Your task to perform on an android device: Go to Amazon Image 0: 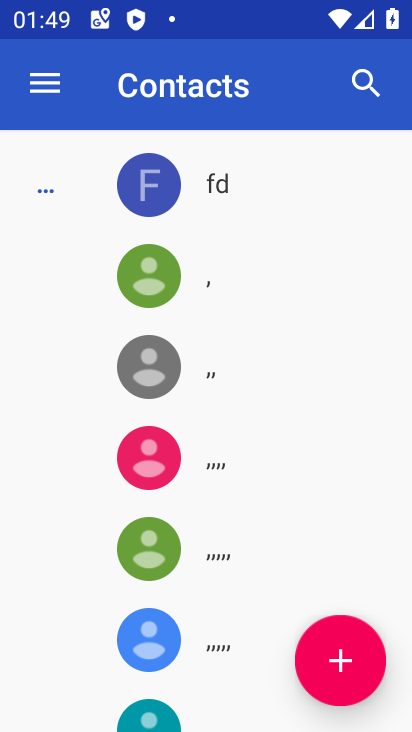
Step 0: press home button
Your task to perform on an android device: Go to Amazon Image 1: 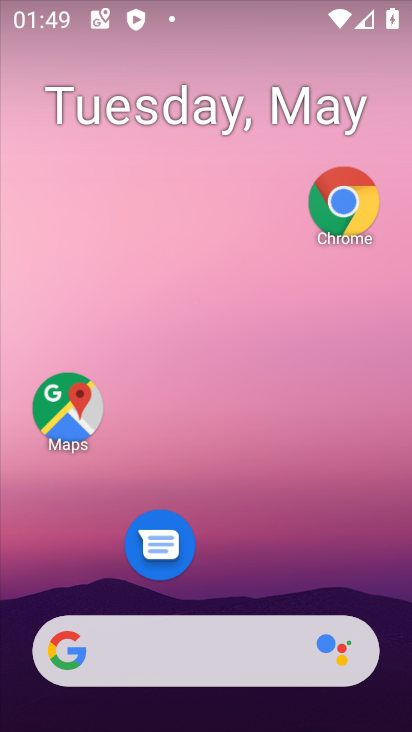
Step 1: click (347, 198)
Your task to perform on an android device: Go to Amazon Image 2: 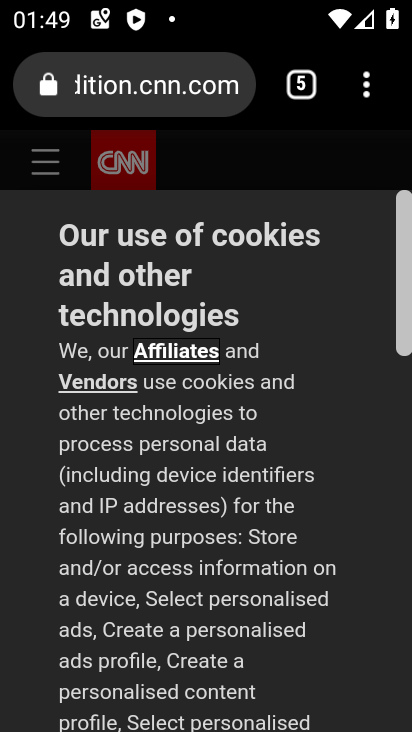
Step 2: click (299, 94)
Your task to perform on an android device: Go to Amazon Image 3: 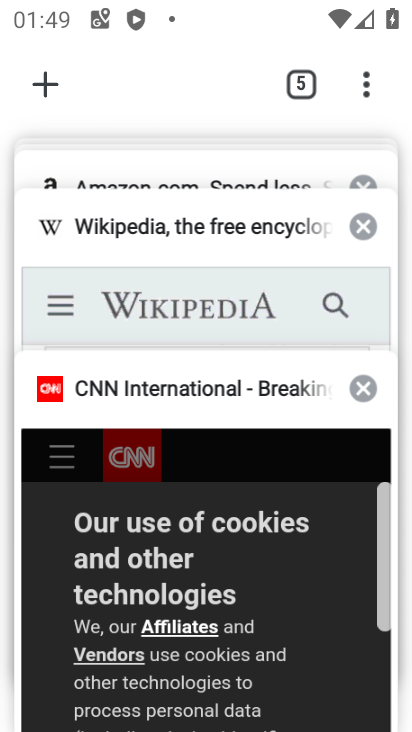
Step 3: click (103, 176)
Your task to perform on an android device: Go to Amazon Image 4: 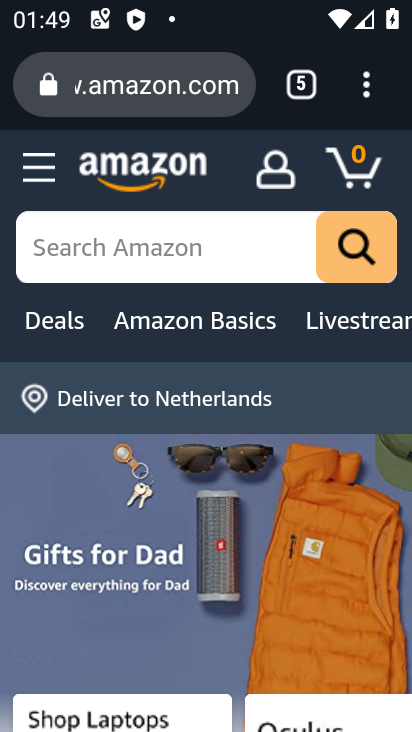
Step 4: task complete